Your task to perform on an android device: add a contact in the contacts app Image 0: 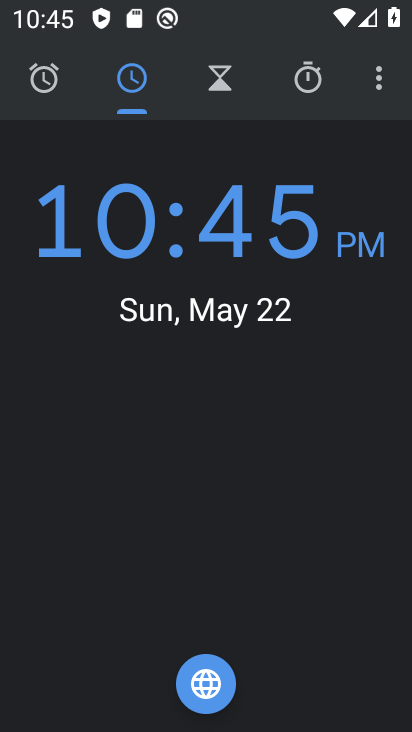
Step 0: press home button
Your task to perform on an android device: add a contact in the contacts app Image 1: 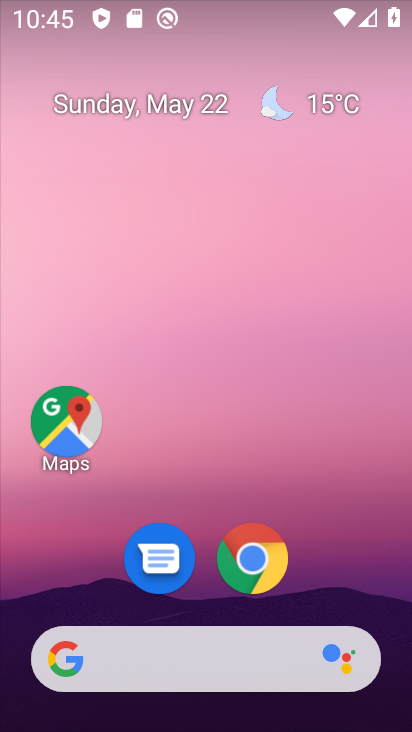
Step 1: drag from (357, 594) to (393, 15)
Your task to perform on an android device: add a contact in the contacts app Image 2: 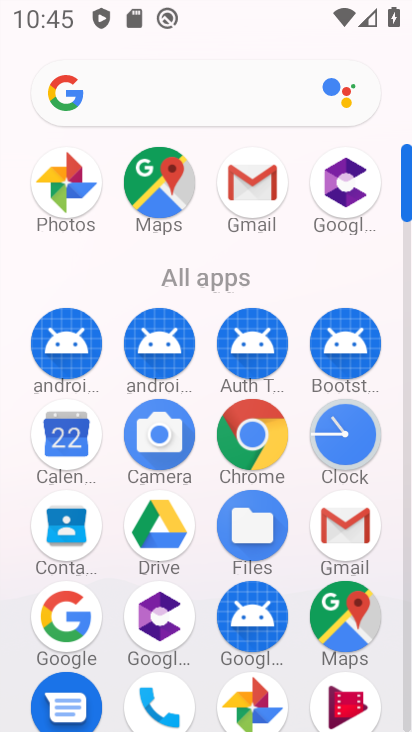
Step 2: click (65, 545)
Your task to perform on an android device: add a contact in the contacts app Image 3: 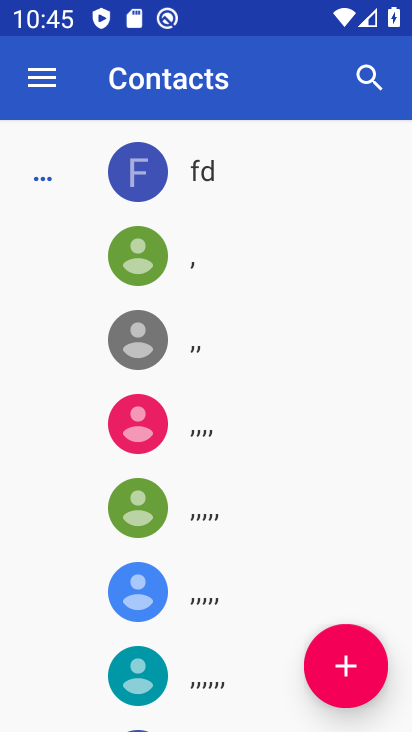
Step 3: click (352, 665)
Your task to perform on an android device: add a contact in the contacts app Image 4: 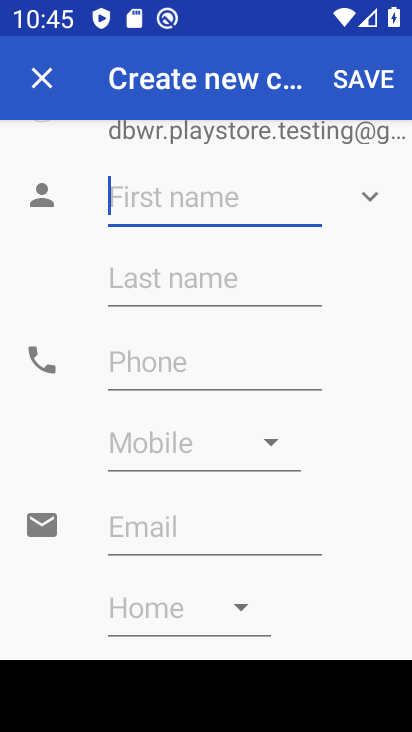
Step 4: click (109, 197)
Your task to perform on an android device: add a contact in the contacts app Image 5: 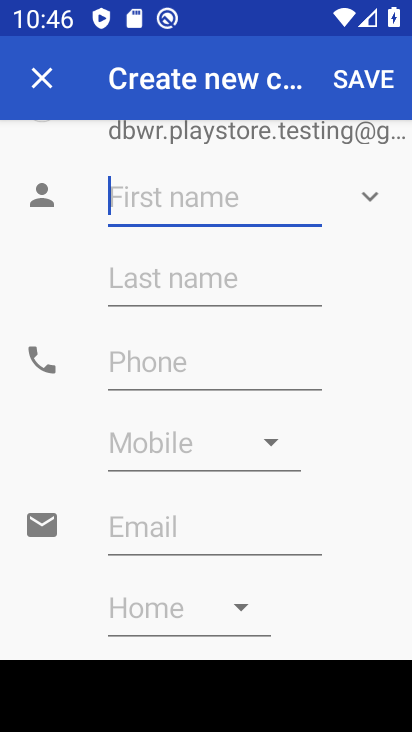
Step 5: type "lali"
Your task to perform on an android device: add a contact in the contacts app Image 6: 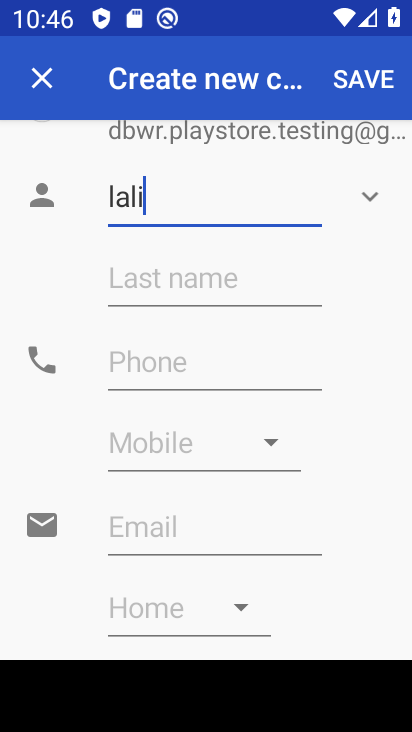
Step 6: click (299, 359)
Your task to perform on an android device: add a contact in the contacts app Image 7: 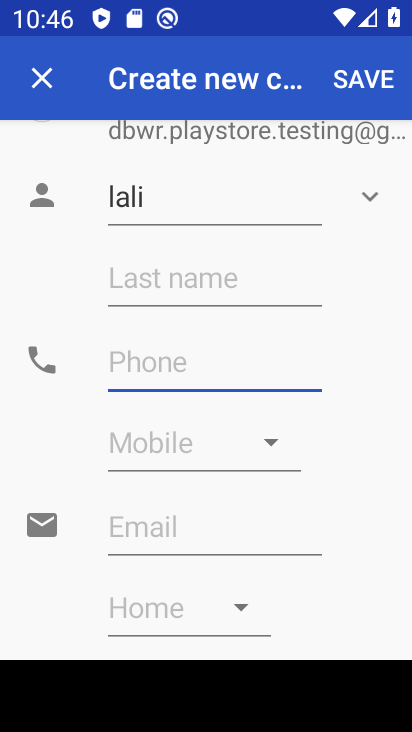
Step 7: type "98876655"
Your task to perform on an android device: add a contact in the contacts app Image 8: 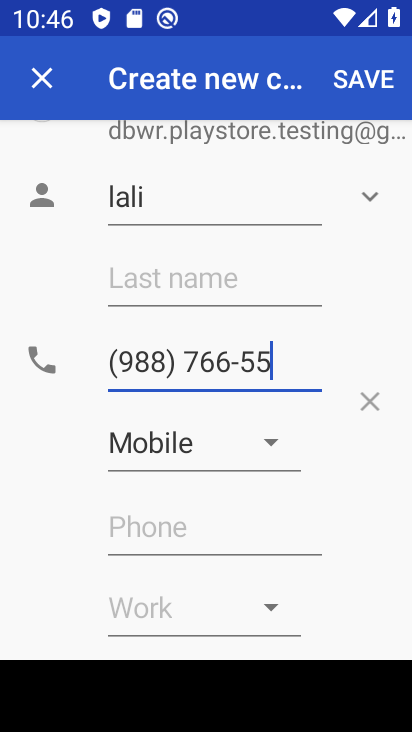
Step 8: click (338, 83)
Your task to perform on an android device: add a contact in the contacts app Image 9: 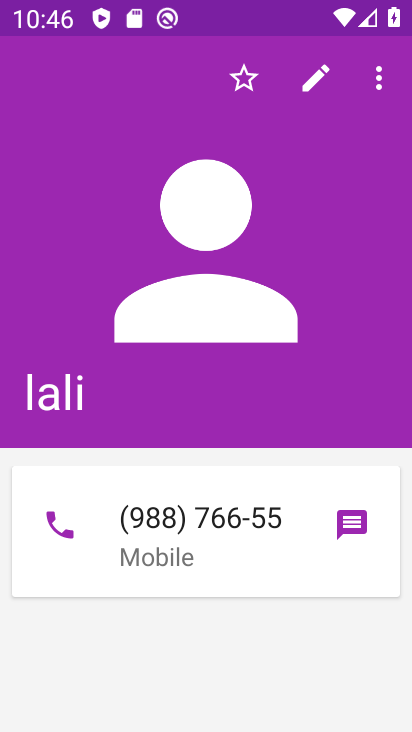
Step 9: task complete